Your task to perform on an android device: allow cookies in the chrome app Image 0: 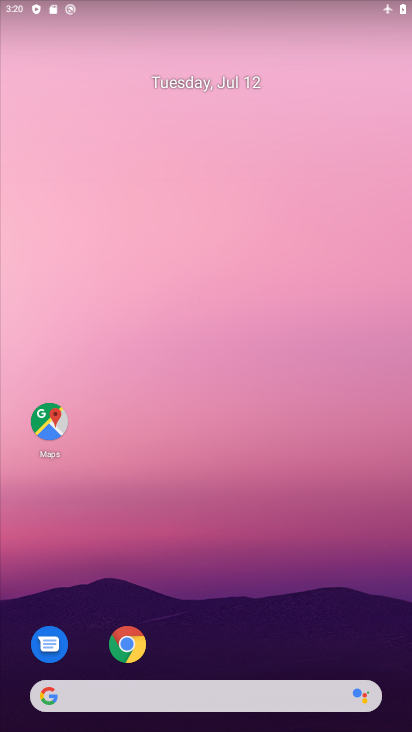
Step 0: drag from (289, 627) to (285, 233)
Your task to perform on an android device: allow cookies in the chrome app Image 1: 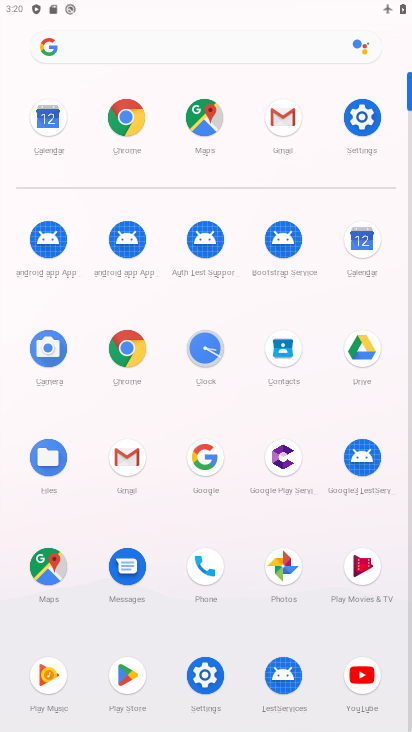
Step 1: click (124, 117)
Your task to perform on an android device: allow cookies in the chrome app Image 2: 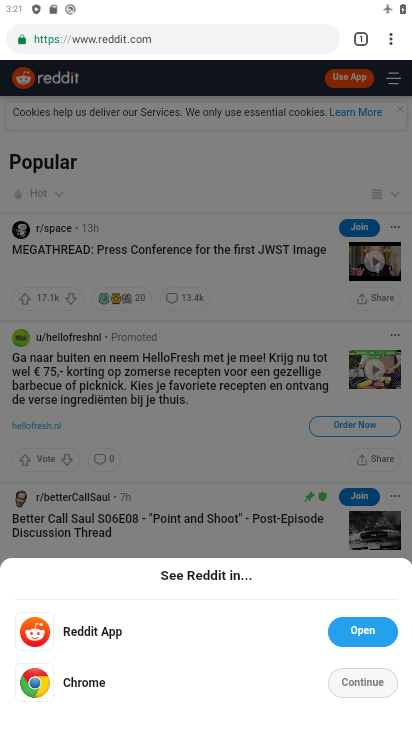
Step 2: drag from (391, 30) to (255, 427)
Your task to perform on an android device: allow cookies in the chrome app Image 3: 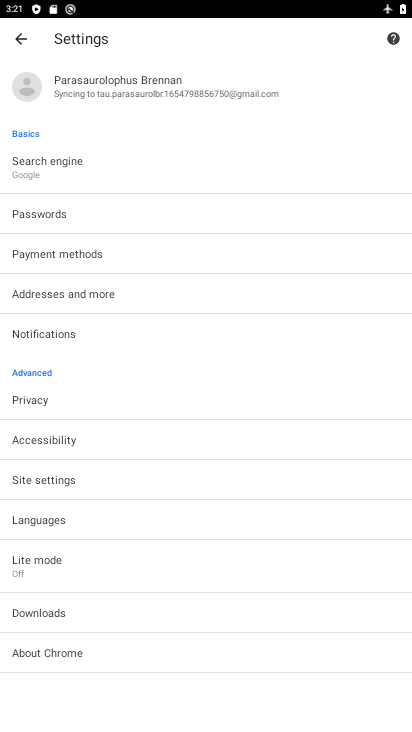
Step 3: click (64, 478)
Your task to perform on an android device: allow cookies in the chrome app Image 4: 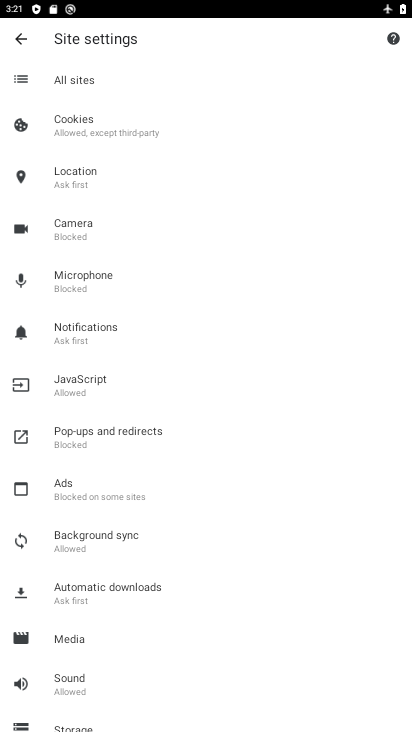
Step 4: click (96, 129)
Your task to perform on an android device: allow cookies in the chrome app Image 5: 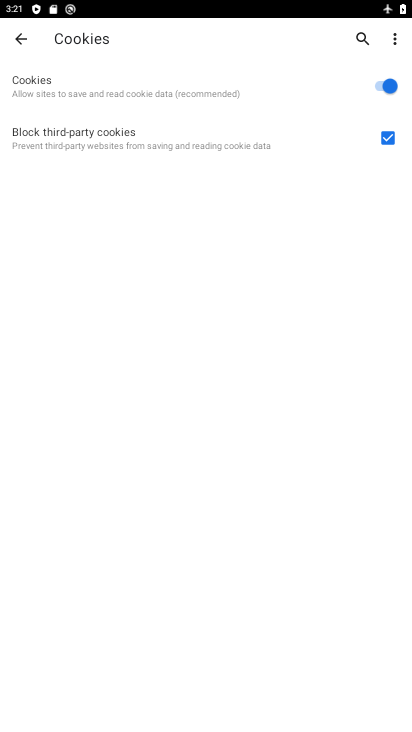
Step 5: task complete